Your task to perform on an android device: open the mobile data screen to see how much data has been used Image 0: 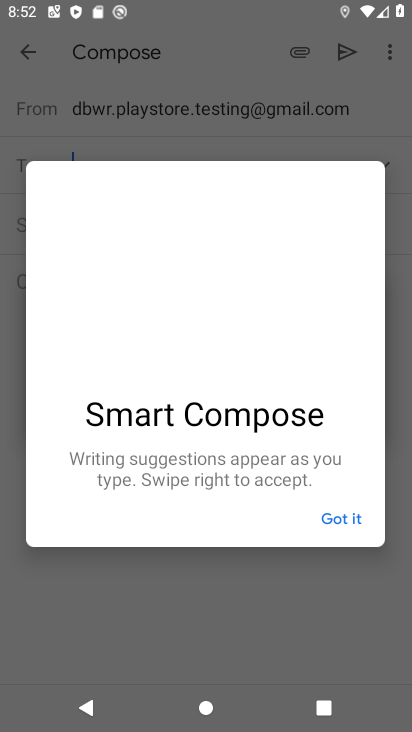
Step 0: drag from (242, 4) to (135, 659)
Your task to perform on an android device: open the mobile data screen to see how much data has been used Image 1: 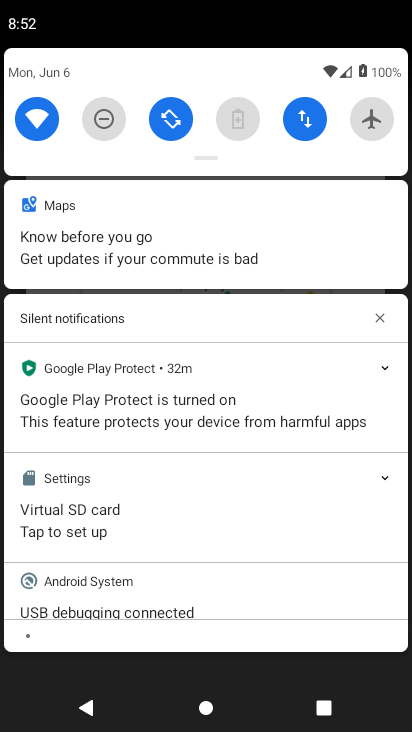
Step 1: click (305, 118)
Your task to perform on an android device: open the mobile data screen to see how much data has been used Image 2: 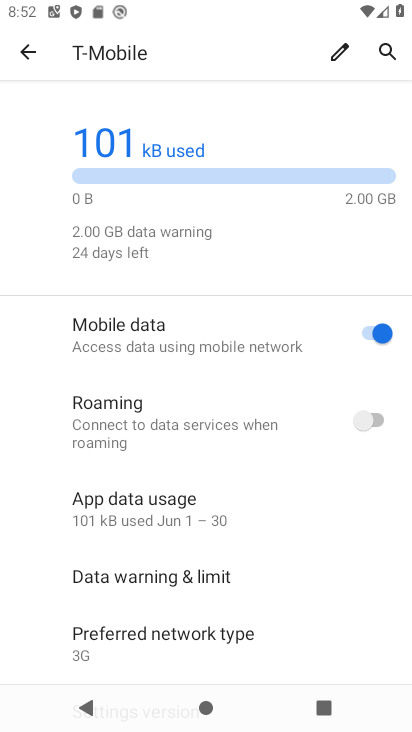
Step 2: task complete